Your task to perform on an android device: Search for the best gaming mouses on Amazon. Image 0: 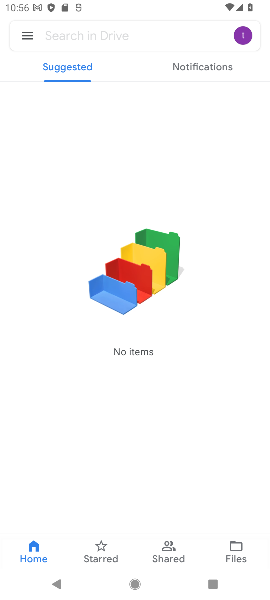
Step 0: press home button
Your task to perform on an android device: Search for the best gaming mouses on Amazon. Image 1: 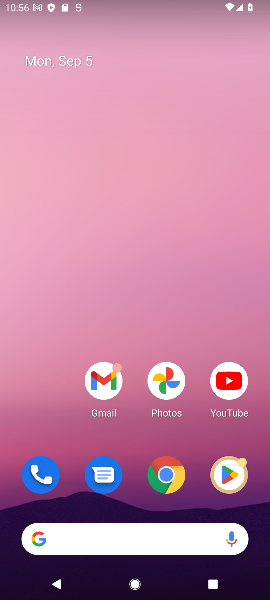
Step 1: click (104, 537)
Your task to perform on an android device: Search for the best gaming mouses on Amazon. Image 2: 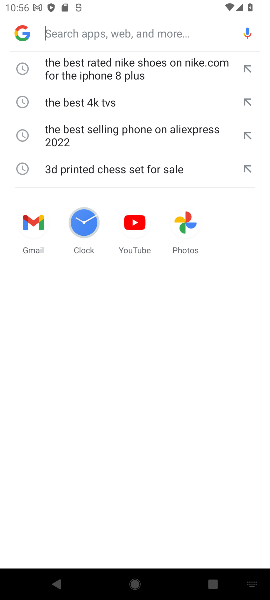
Step 2: type " the best gaming mouses on Amazon"
Your task to perform on an android device: Search for the best gaming mouses on Amazon. Image 3: 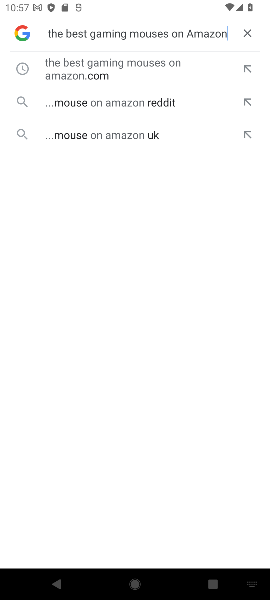
Step 3: click (100, 74)
Your task to perform on an android device: Search for the best gaming mouses on Amazon. Image 4: 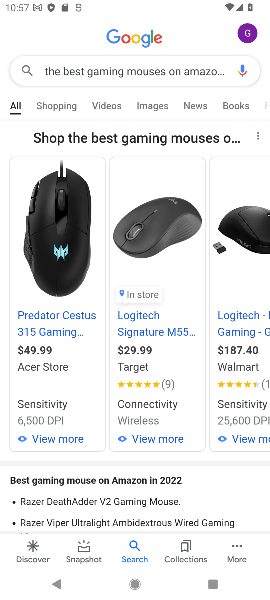
Step 4: task complete